Your task to perform on an android device: install app "Facebook Messenger" Image 0: 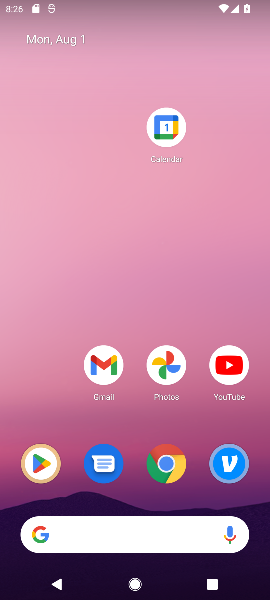
Step 0: drag from (136, 503) to (164, 48)
Your task to perform on an android device: install app "Facebook Messenger" Image 1: 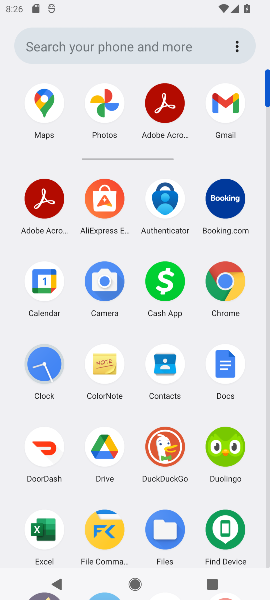
Step 1: click (164, 48)
Your task to perform on an android device: install app "Facebook Messenger" Image 2: 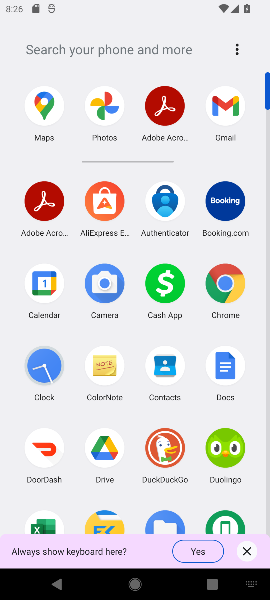
Step 2: drag from (137, 497) to (129, 299)
Your task to perform on an android device: install app "Facebook Messenger" Image 3: 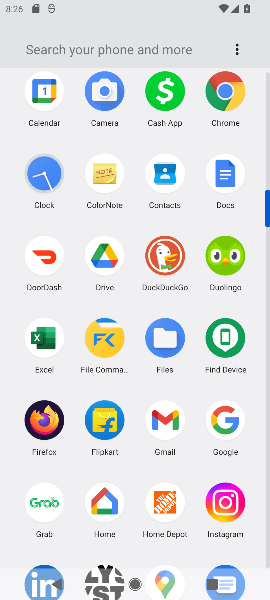
Step 3: drag from (132, 456) to (124, 159)
Your task to perform on an android device: install app "Facebook Messenger" Image 4: 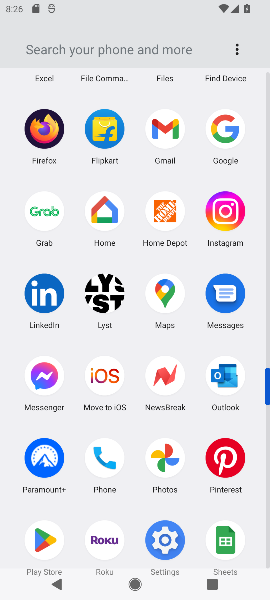
Step 4: click (39, 543)
Your task to perform on an android device: install app "Facebook Messenger" Image 5: 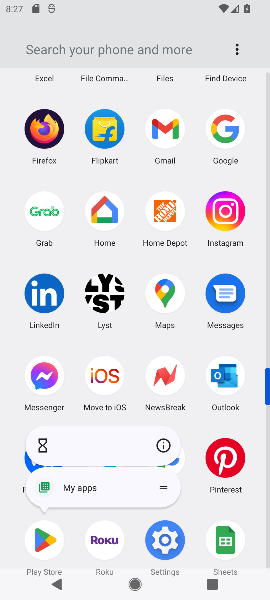
Step 5: click (39, 543)
Your task to perform on an android device: install app "Facebook Messenger" Image 6: 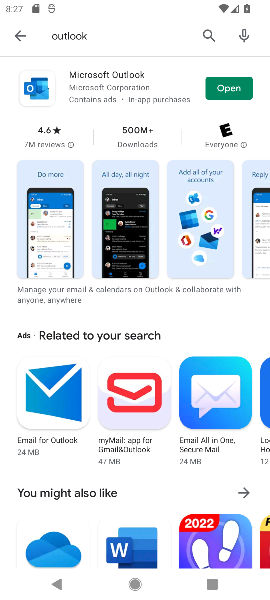
Step 6: click (208, 29)
Your task to perform on an android device: install app "Facebook Messenger" Image 7: 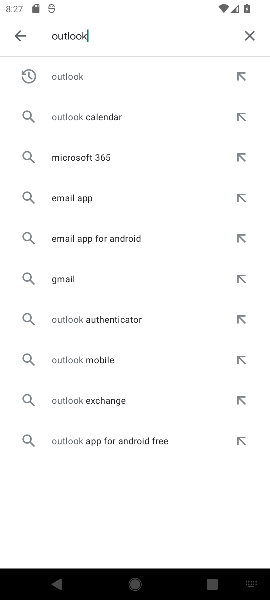
Step 7: click (248, 35)
Your task to perform on an android device: install app "Facebook Messenger" Image 8: 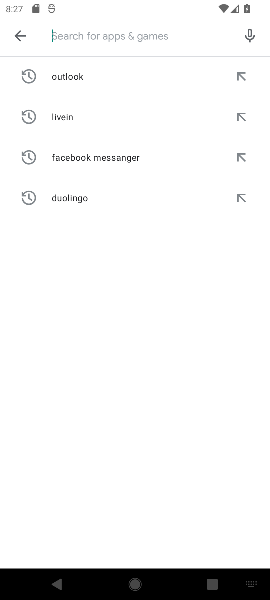
Step 8: type "facebook"
Your task to perform on an android device: install app "Facebook Messenger" Image 9: 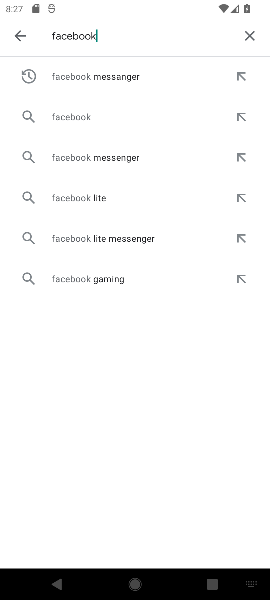
Step 9: click (140, 83)
Your task to perform on an android device: install app "Facebook Messenger" Image 10: 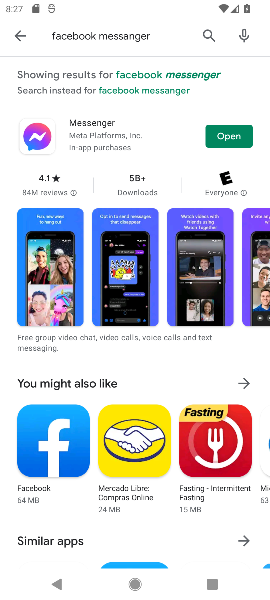
Step 10: click (225, 133)
Your task to perform on an android device: install app "Facebook Messenger" Image 11: 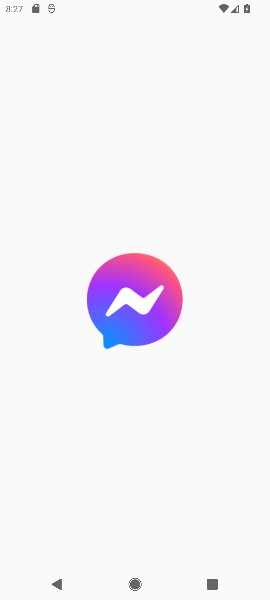
Step 11: task complete